Your task to perform on an android device: turn on improve location accuracy Image 0: 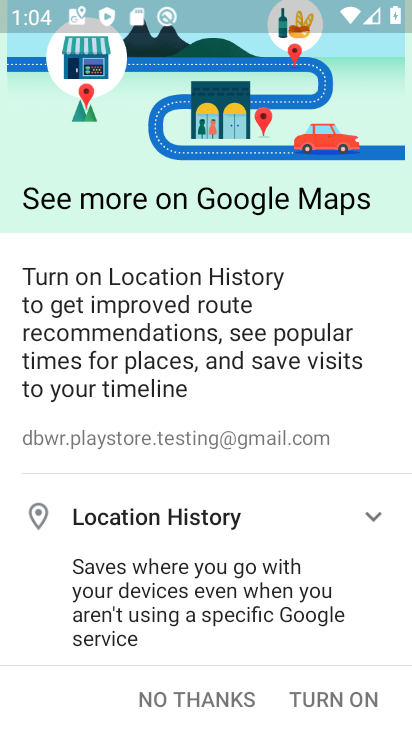
Step 0: press home button
Your task to perform on an android device: turn on improve location accuracy Image 1: 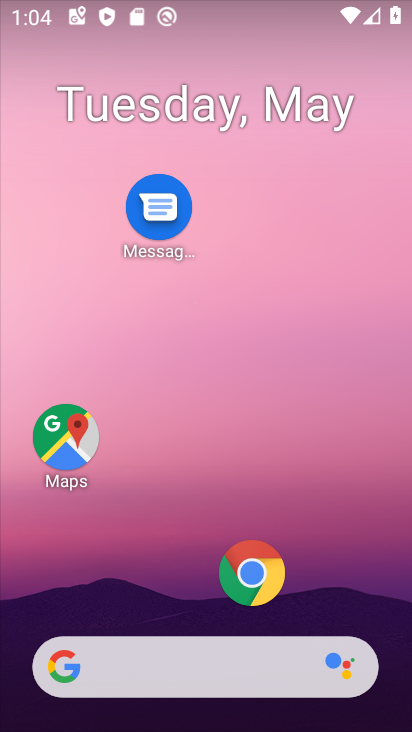
Step 1: drag from (175, 582) to (290, 10)
Your task to perform on an android device: turn on improve location accuracy Image 2: 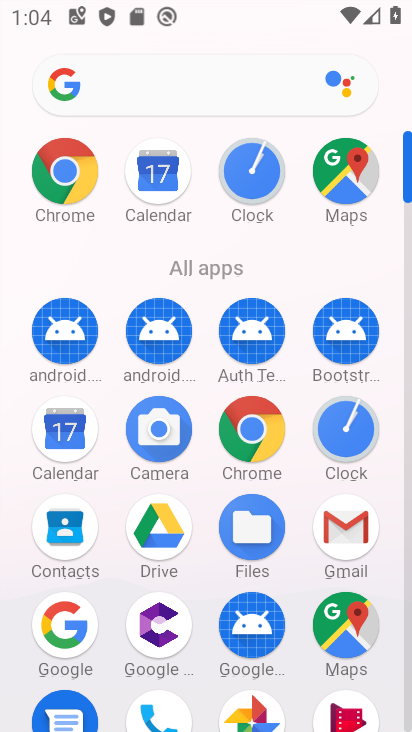
Step 2: drag from (179, 566) to (228, 215)
Your task to perform on an android device: turn on improve location accuracy Image 3: 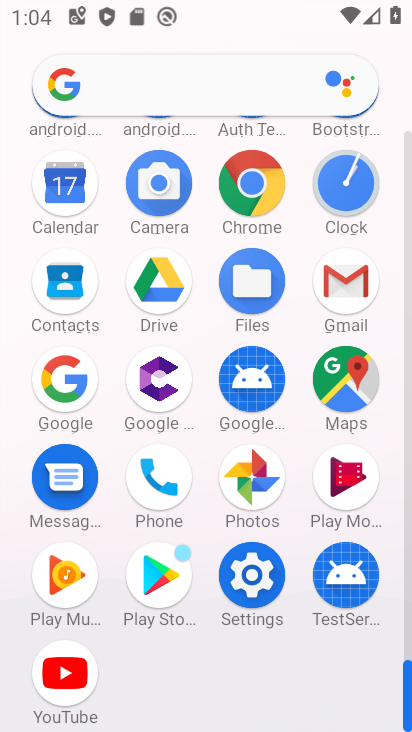
Step 3: click (243, 589)
Your task to perform on an android device: turn on improve location accuracy Image 4: 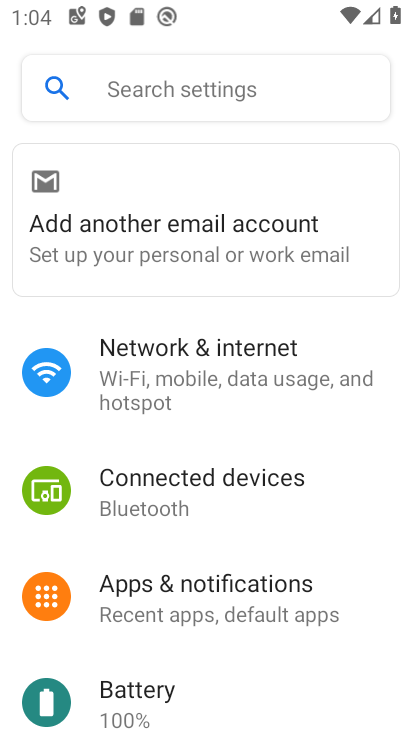
Step 4: drag from (174, 605) to (187, 310)
Your task to perform on an android device: turn on improve location accuracy Image 5: 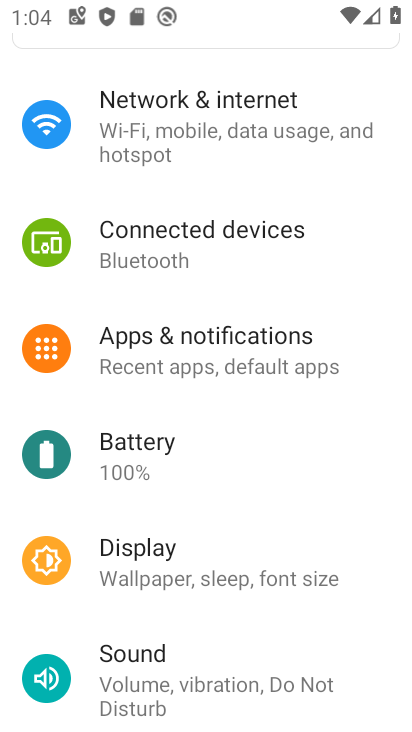
Step 5: drag from (202, 589) to (240, 269)
Your task to perform on an android device: turn on improve location accuracy Image 6: 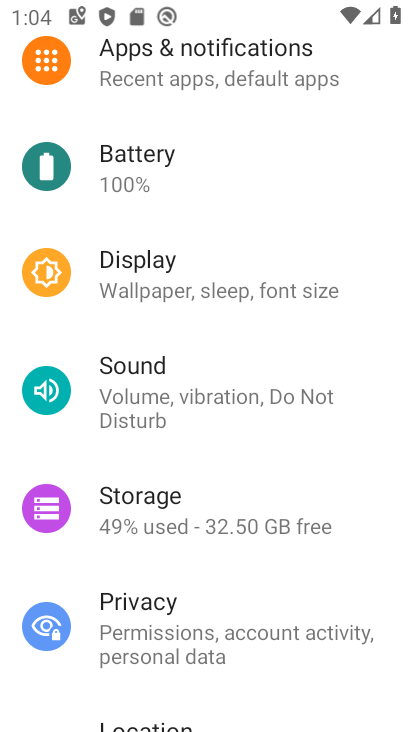
Step 6: drag from (167, 627) to (193, 395)
Your task to perform on an android device: turn on improve location accuracy Image 7: 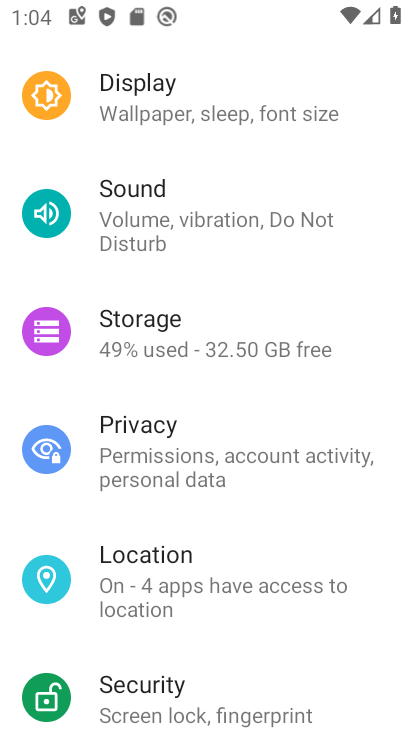
Step 7: click (148, 598)
Your task to perform on an android device: turn on improve location accuracy Image 8: 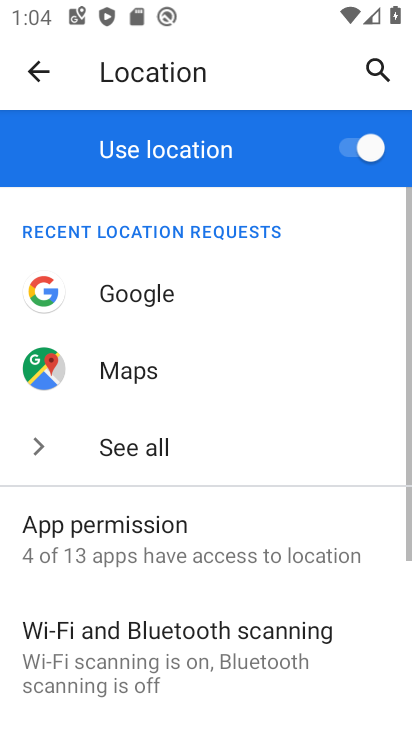
Step 8: drag from (158, 587) to (202, 331)
Your task to perform on an android device: turn on improve location accuracy Image 9: 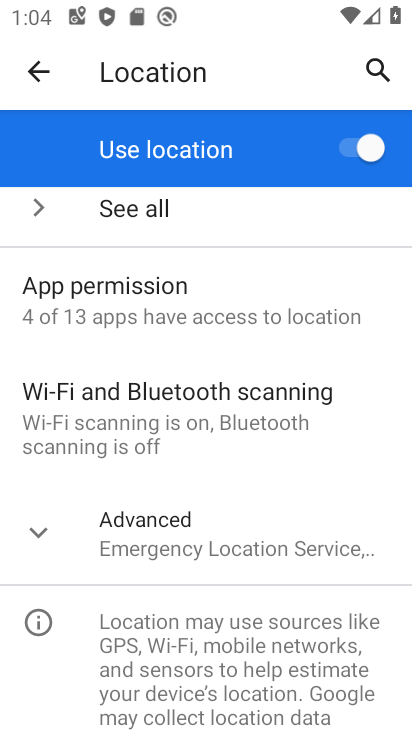
Step 9: click (184, 545)
Your task to perform on an android device: turn on improve location accuracy Image 10: 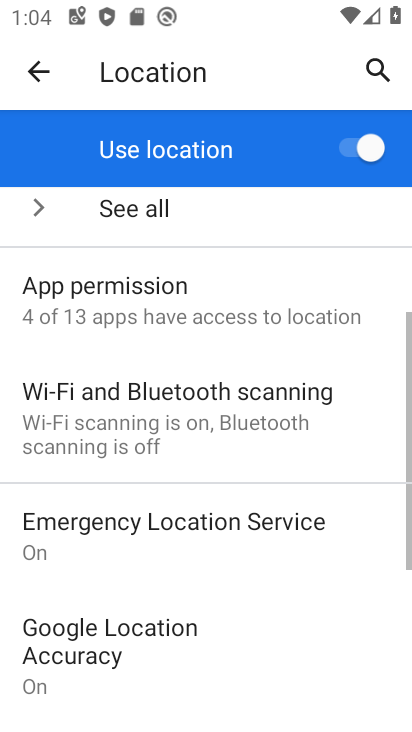
Step 10: drag from (170, 618) to (214, 454)
Your task to perform on an android device: turn on improve location accuracy Image 11: 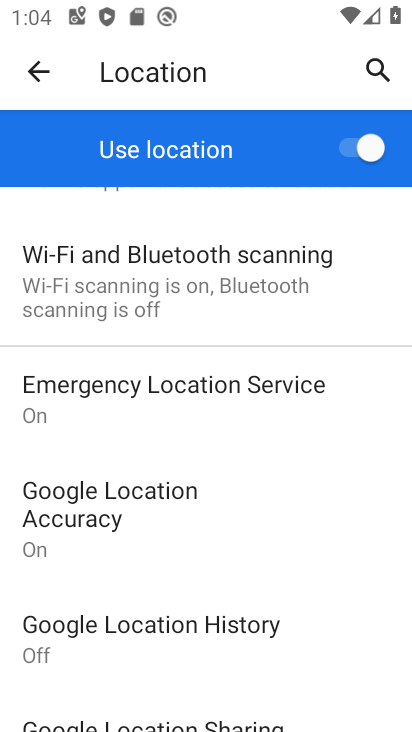
Step 11: click (168, 520)
Your task to perform on an android device: turn on improve location accuracy Image 12: 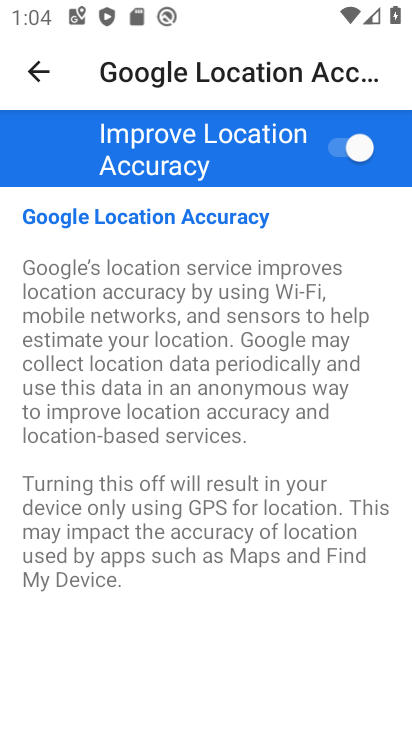
Step 12: task complete